Your task to perform on an android device: add a contact in the contacts app Image 0: 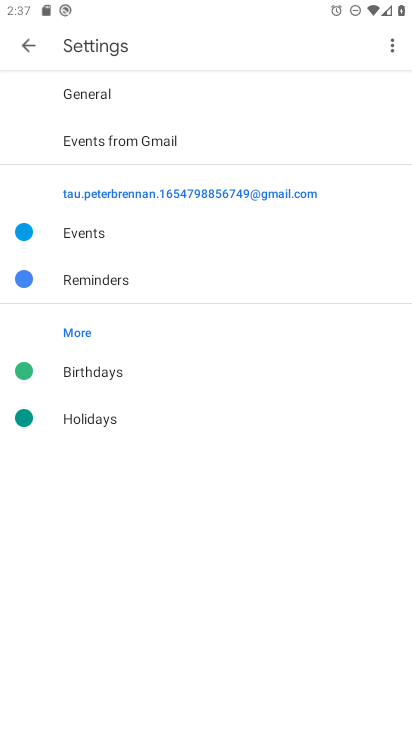
Step 0: press home button
Your task to perform on an android device: add a contact in the contacts app Image 1: 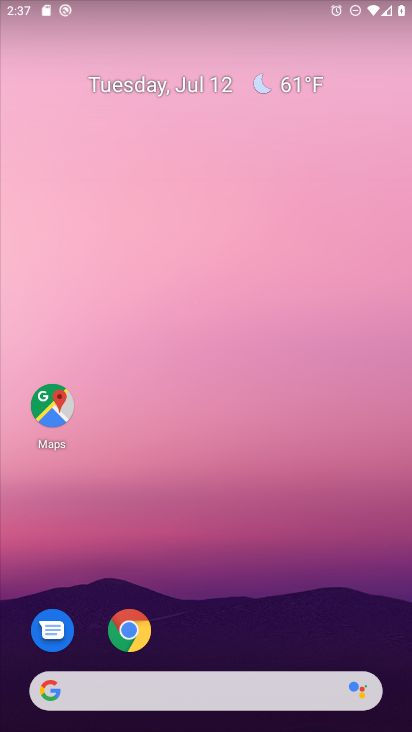
Step 1: drag from (219, 645) to (254, 98)
Your task to perform on an android device: add a contact in the contacts app Image 2: 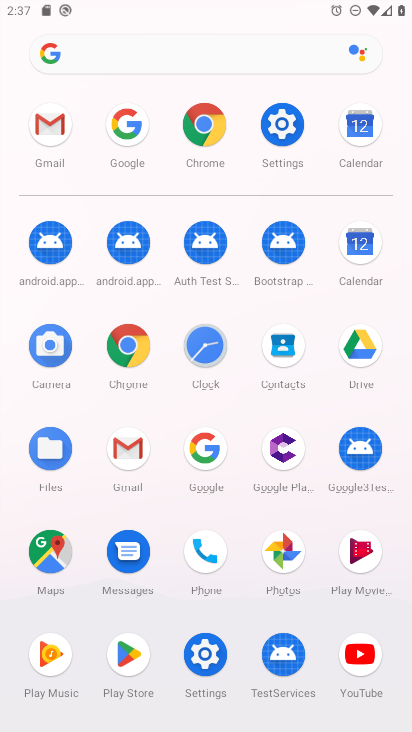
Step 2: click (272, 339)
Your task to perform on an android device: add a contact in the contacts app Image 3: 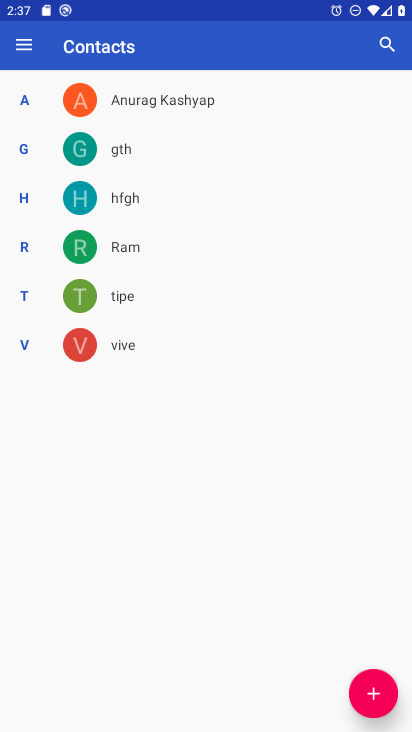
Step 3: click (361, 685)
Your task to perform on an android device: add a contact in the contacts app Image 4: 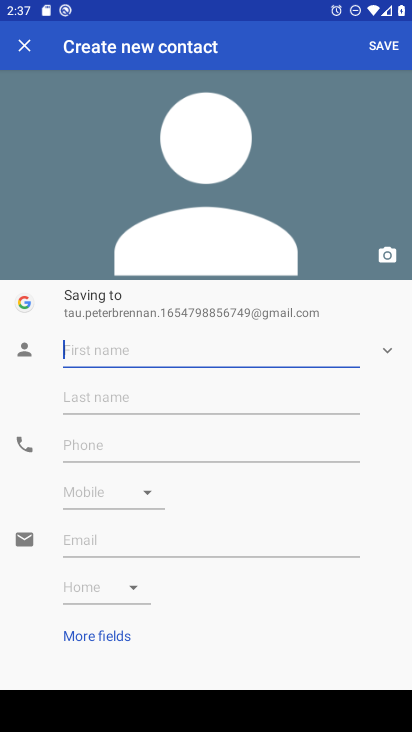
Step 4: type "tjhyjyj"
Your task to perform on an android device: add a contact in the contacts app Image 5: 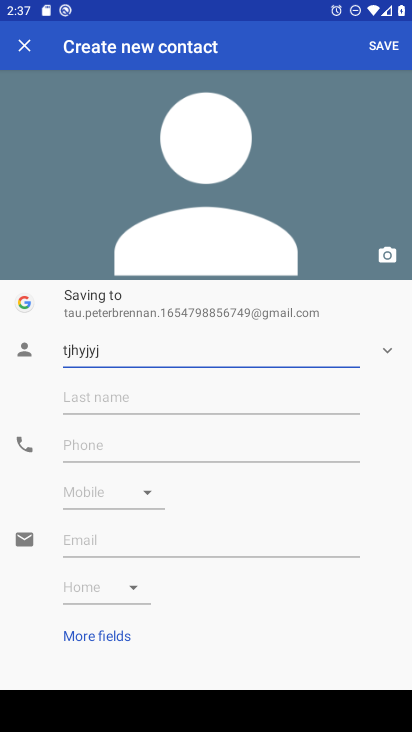
Step 5: click (126, 441)
Your task to perform on an android device: add a contact in the contacts app Image 6: 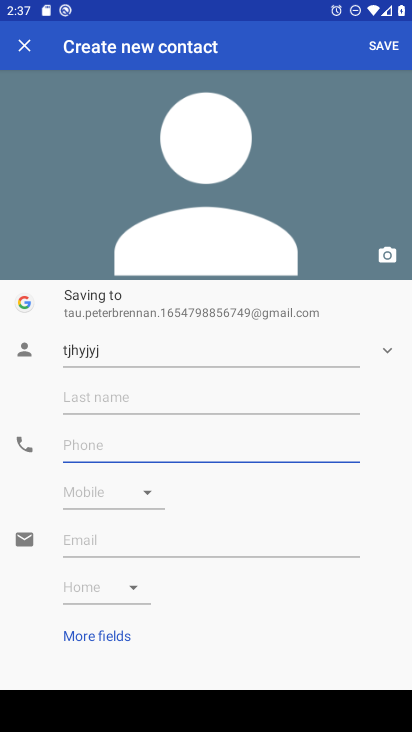
Step 6: type "976856778"
Your task to perform on an android device: add a contact in the contacts app Image 7: 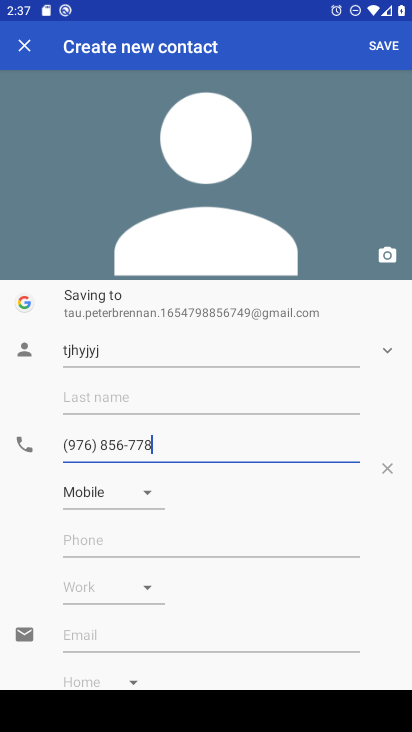
Step 7: click (371, 44)
Your task to perform on an android device: add a contact in the contacts app Image 8: 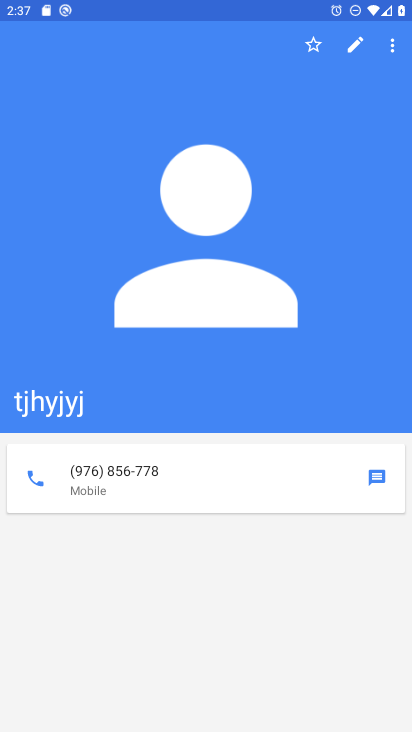
Step 8: task complete